Your task to perform on an android device: Show me productivity apps on the Play Store Image 0: 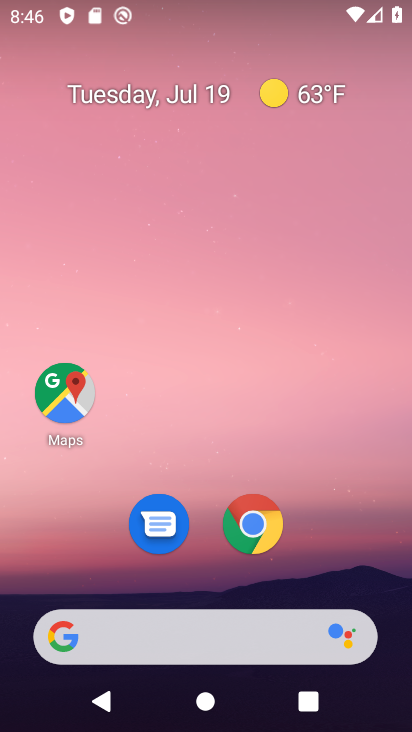
Step 0: press home button
Your task to perform on an android device: Show me productivity apps on the Play Store Image 1: 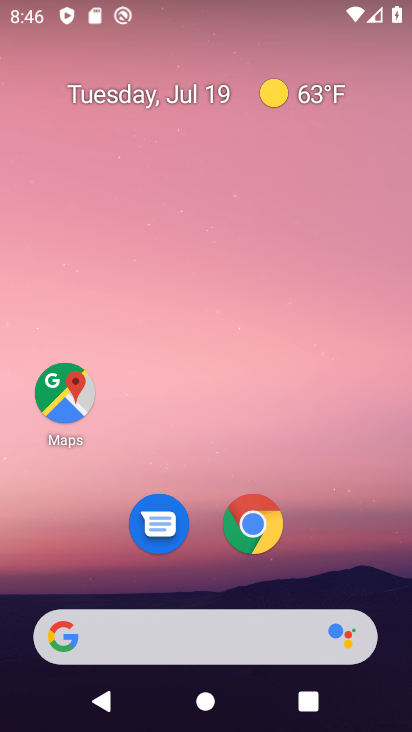
Step 1: drag from (196, 644) to (361, 188)
Your task to perform on an android device: Show me productivity apps on the Play Store Image 2: 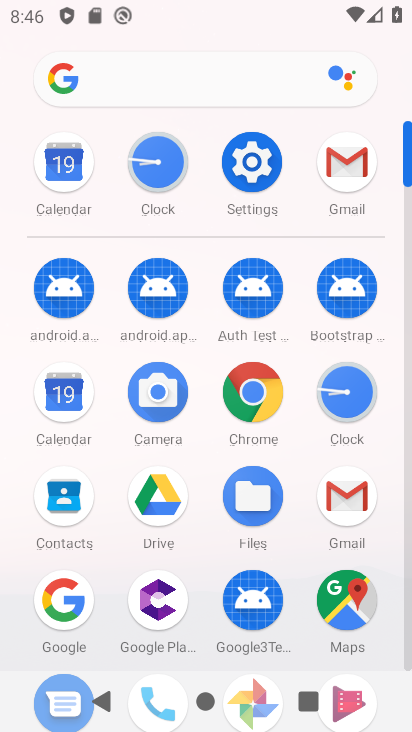
Step 2: drag from (216, 602) to (409, 237)
Your task to perform on an android device: Show me productivity apps on the Play Store Image 3: 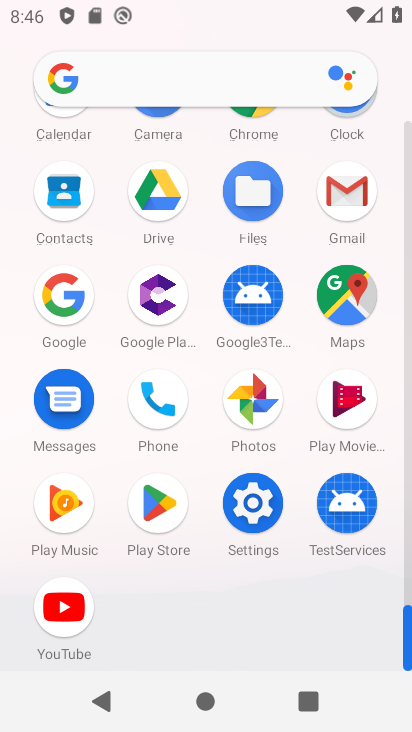
Step 3: click (159, 502)
Your task to perform on an android device: Show me productivity apps on the Play Store Image 4: 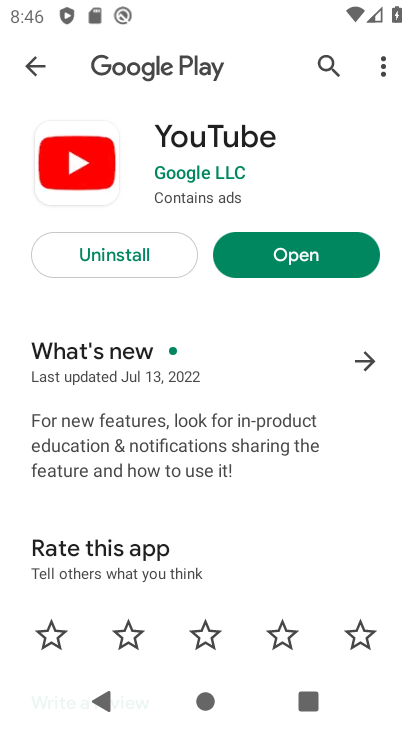
Step 4: click (28, 56)
Your task to perform on an android device: Show me productivity apps on the Play Store Image 5: 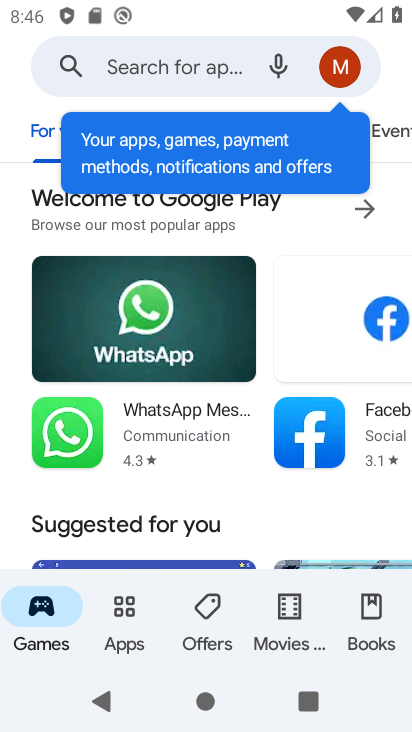
Step 5: click (125, 633)
Your task to perform on an android device: Show me productivity apps on the Play Store Image 6: 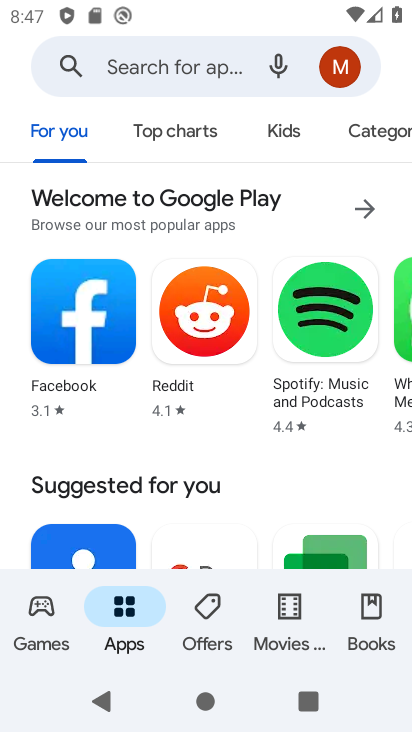
Step 6: click (369, 127)
Your task to perform on an android device: Show me productivity apps on the Play Store Image 7: 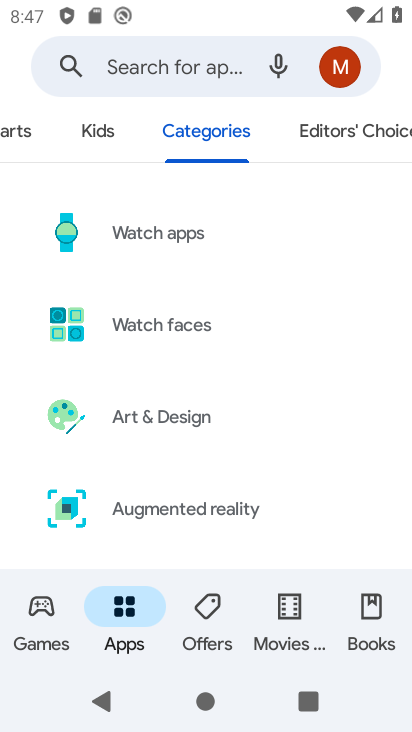
Step 7: drag from (280, 516) to (366, 133)
Your task to perform on an android device: Show me productivity apps on the Play Store Image 8: 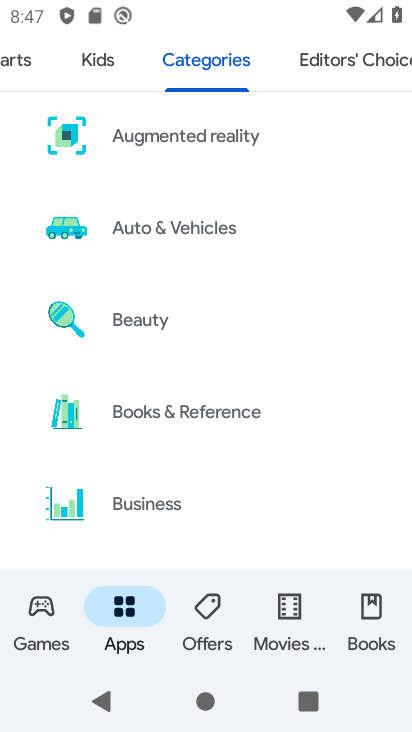
Step 8: drag from (265, 506) to (394, 167)
Your task to perform on an android device: Show me productivity apps on the Play Store Image 9: 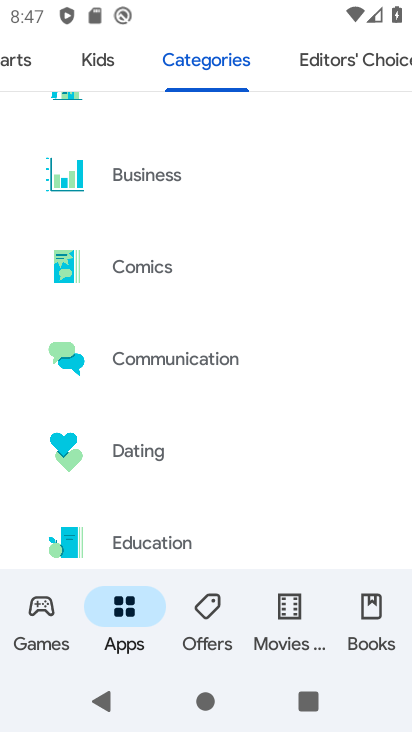
Step 9: drag from (234, 522) to (403, 250)
Your task to perform on an android device: Show me productivity apps on the Play Store Image 10: 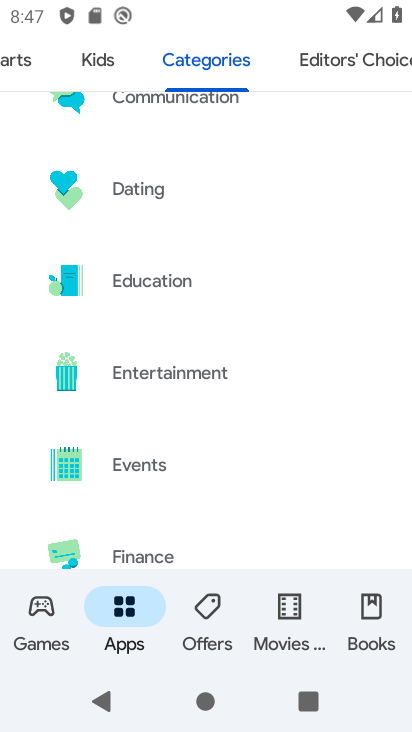
Step 10: drag from (220, 519) to (373, 178)
Your task to perform on an android device: Show me productivity apps on the Play Store Image 11: 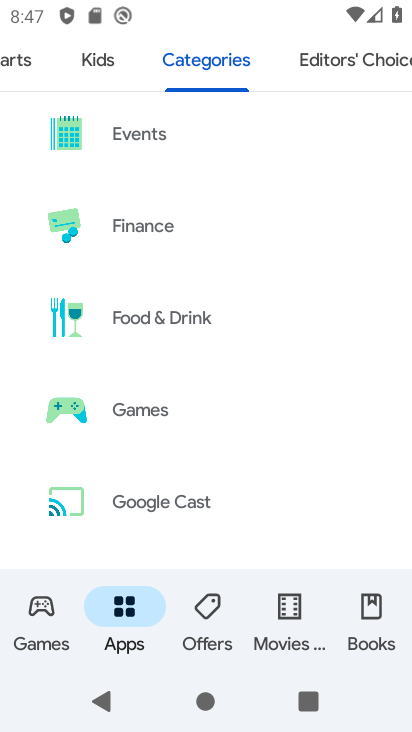
Step 11: drag from (208, 476) to (396, 142)
Your task to perform on an android device: Show me productivity apps on the Play Store Image 12: 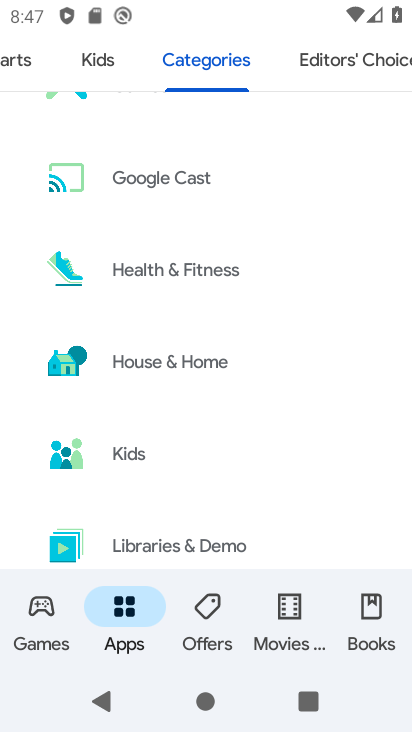
Step 12: drag from (233, 499) to (339, 36)
Your task to perform on an android device: Show me productivity apps on the Play Store Image 13: 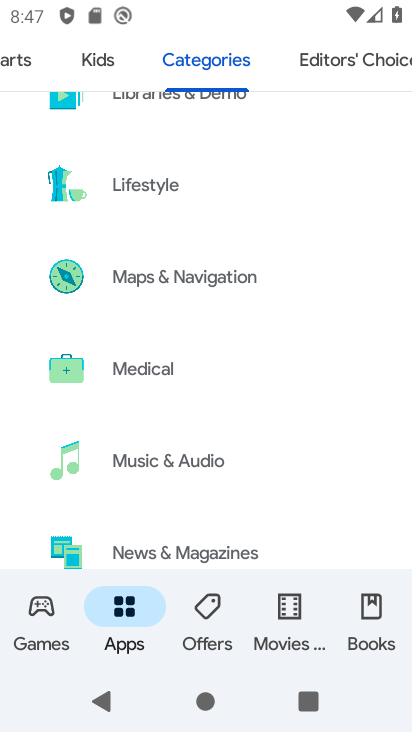
Step 13: drag from (261, 537) to (371, 62)
Your task to perform on an android device: Show me productivity apps on the Play Store Image 14: 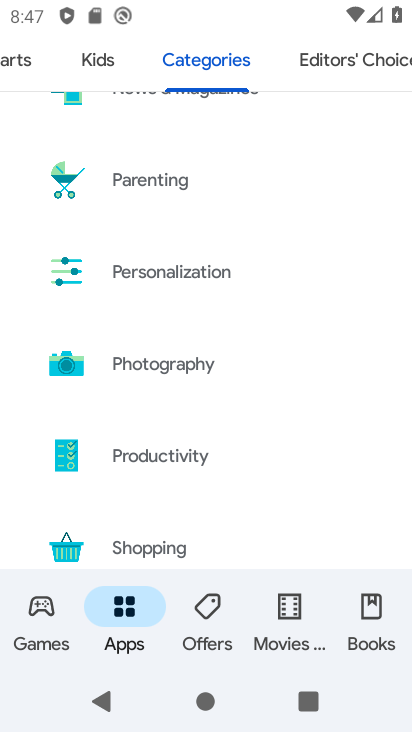
Step 14: click (175, 460)
Your task to perform on an android device: Show me productivity apps on the Play Store Image 15: 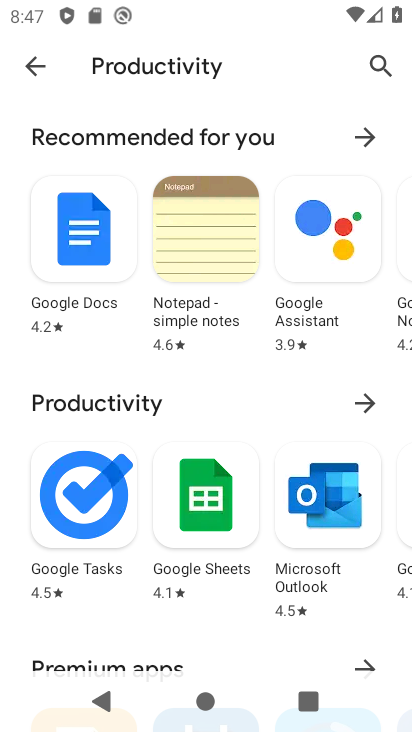
Step 15: task complete